Your task to perform on an android device: empty trash in the gmail app Image 0: 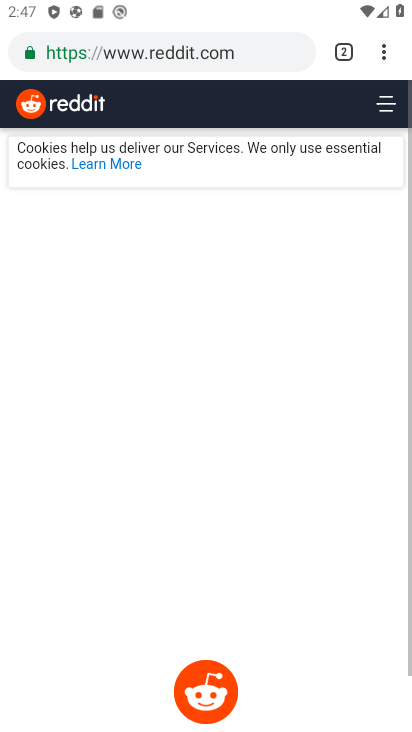
Step 0: press home button
Your task to perform on an android device: empty trash in the gmail app Image 1: 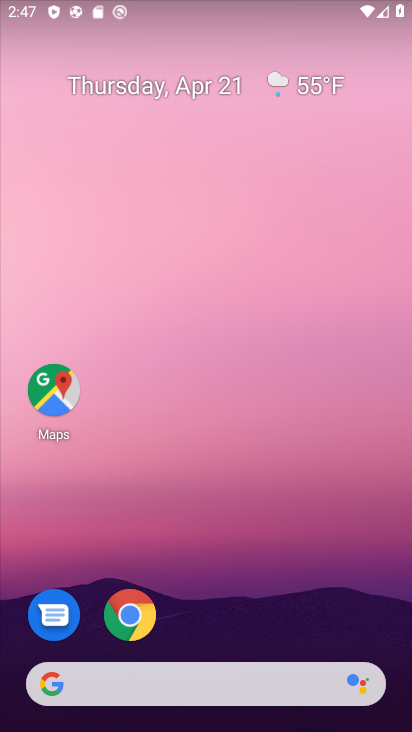
Step 1: drag from (160, 686) to (317, 97)
Your task to perform on an android device: empty trash in the gmail app Image 2: 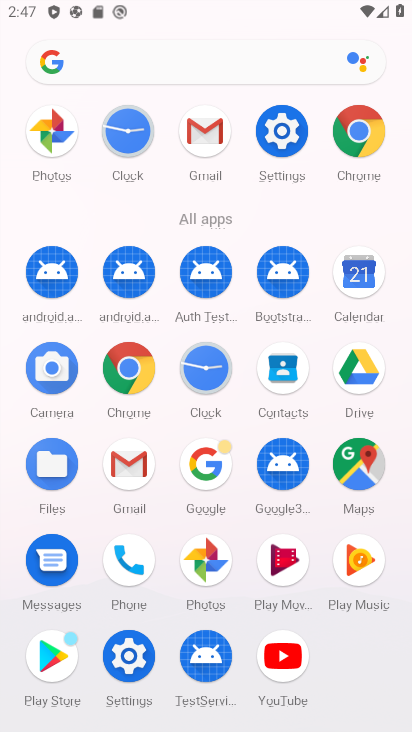
Step 2: click (206, 141)
Your task to perform on an android device: empty trash in the gmail app Image 3: 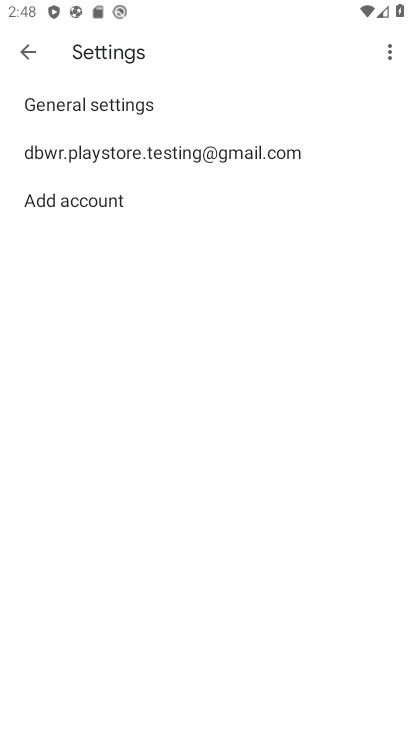
Step 3: press back button
Your task to perform on an android device: empty trash in the gmail app Image 4: 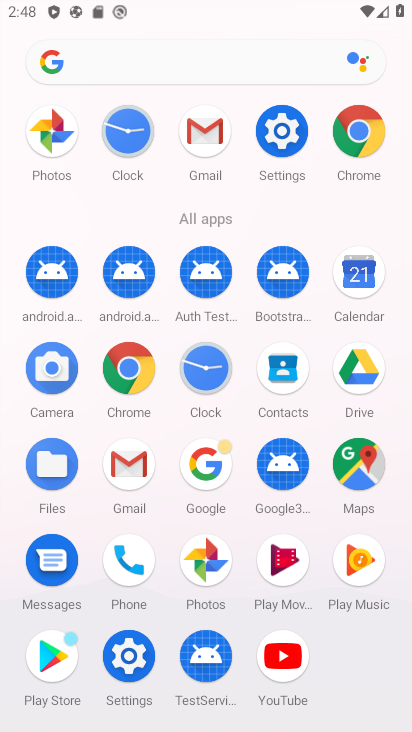
Step 4: click (208, 125)
Your task to perform on an android device: empty trash in the gmail app Image 5: 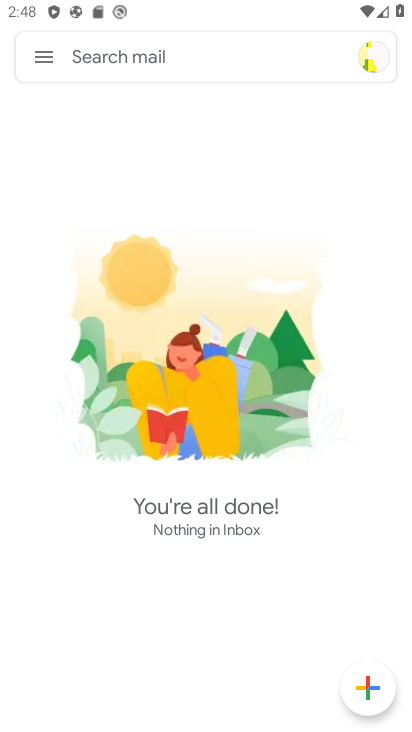
Step 5: click (39, 51)
Your task to perform on an android device: empty trash in the gmail app Image 6: 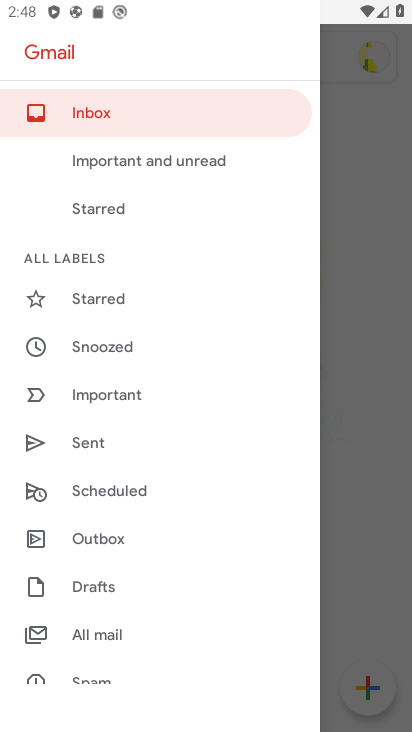
Step 6: drag from (131, 644) to (206, 281)
Your task to perform on an android device: empty trash in the gmail app Image 7: 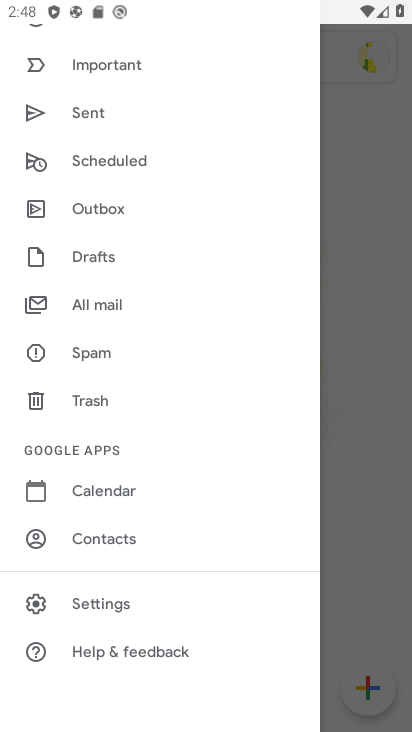
Step 7: click (98, 403)
Your task to perform on an android device: empty trash in the gmail app Image 8: 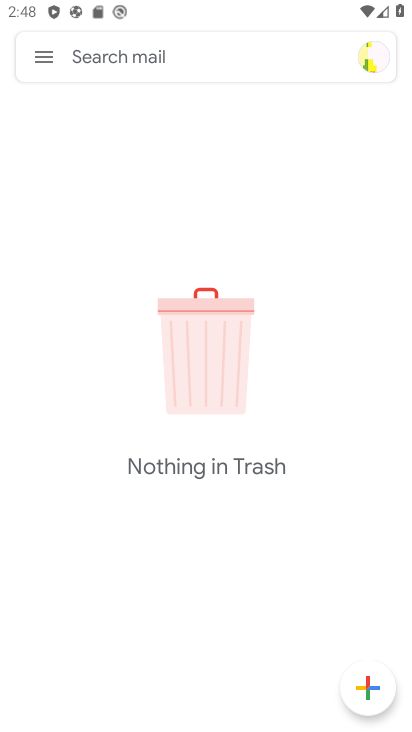
Step 8: task complete